Your task to perform on an android device: Open eBay Image 0: 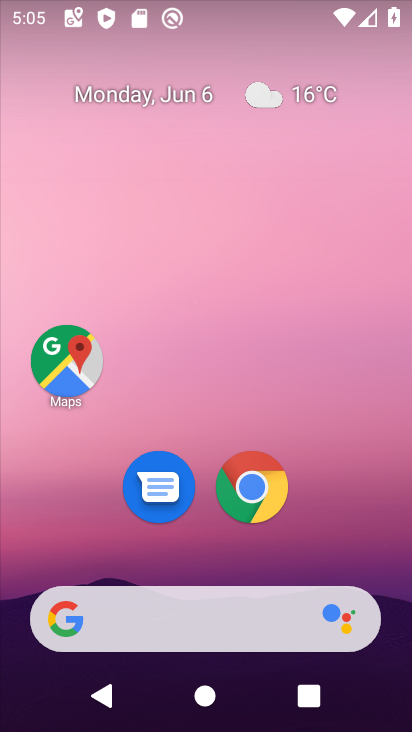
Step 0: click (200, 641)
Your task to perform on an android device: Open eBay Image 1: 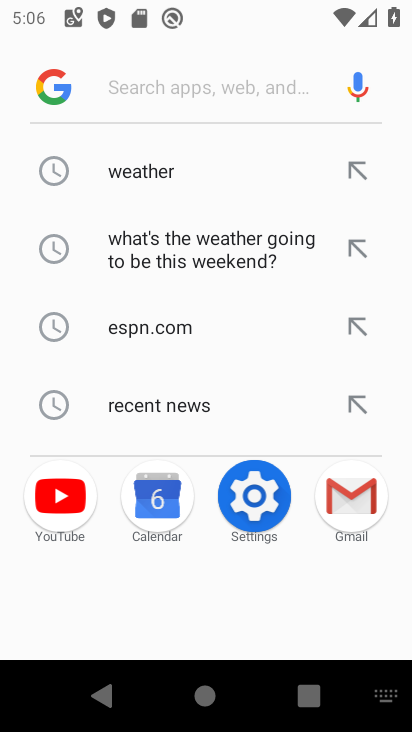
Step 1: type "ebay"
Your task to perform on an android device: Open eBay Image 2: 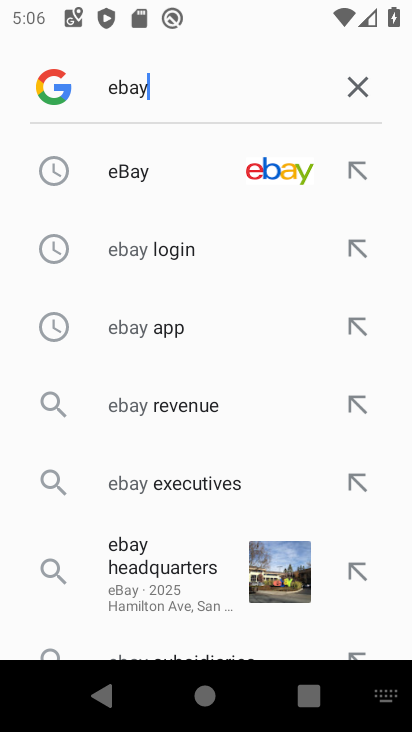
Step 2: click (135, 178)
Your task to perform on an android device: Open eBay Image 3: 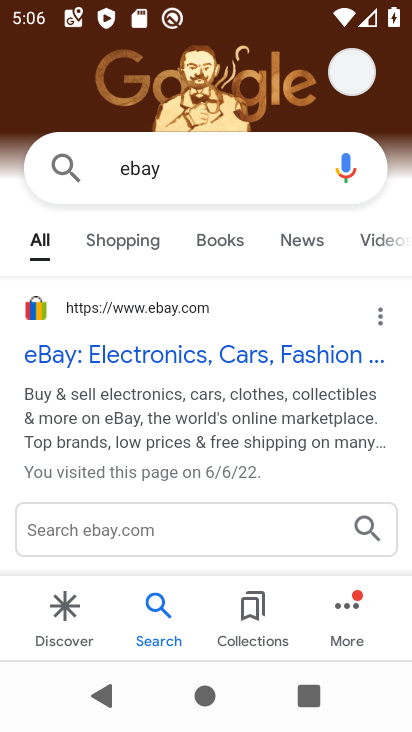
Step 3: click (62, 347)
Your task to perform on an android device: Open eBay Image 4: 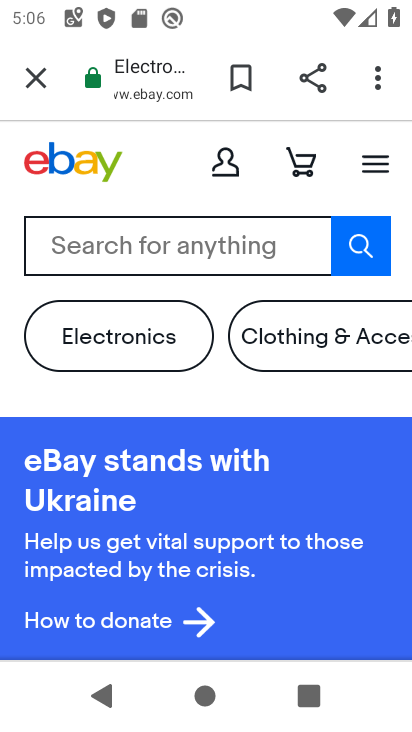
Step 4: task complete